Your task to perform on an android device: Check the weather Image 0: 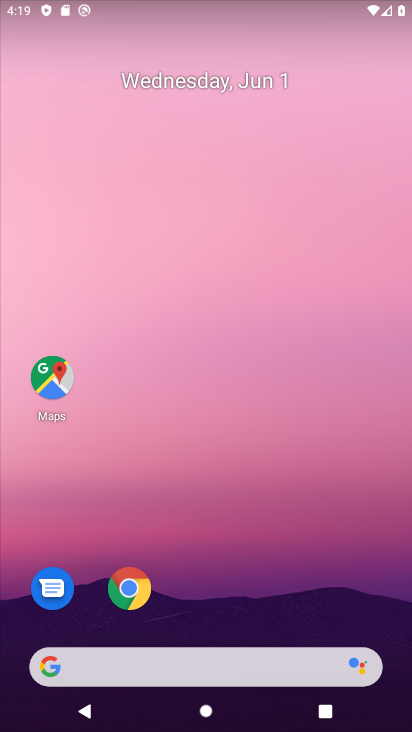
Step 0: drag from (256, 600) to (281, 193)
Your task to perform on an android device: Check the weather Image 1: 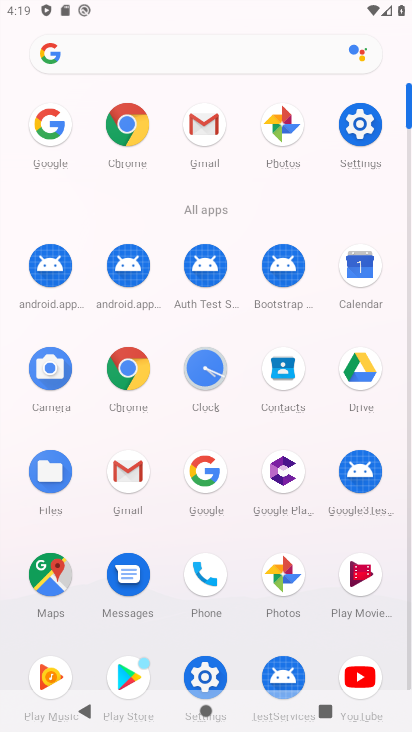
Step 1: click (49, 128)
Your task to perform on an android device: Check the weather Image 2: 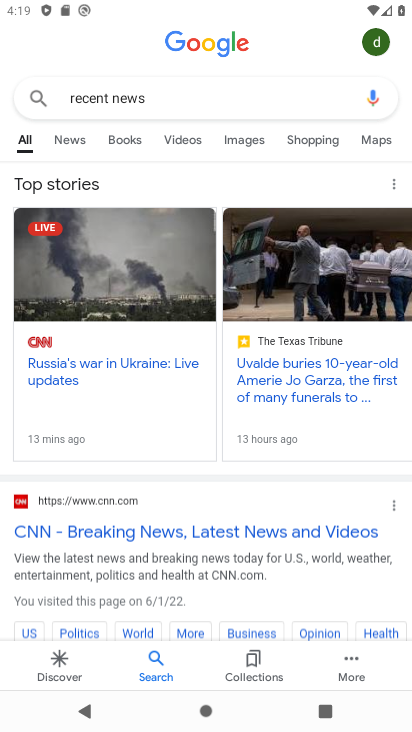
Step 2: click (194, 100)
Your task to perform on an android device: Check the weather Image 3: 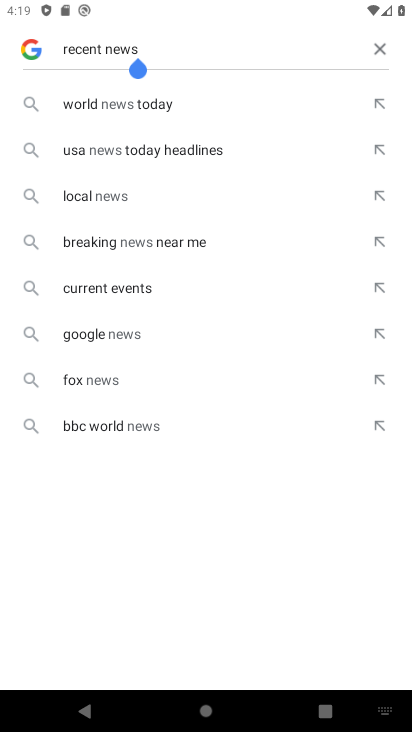
Step 3: click (374, 43)
Your task to perform on an android device: Check the weather Image 4: 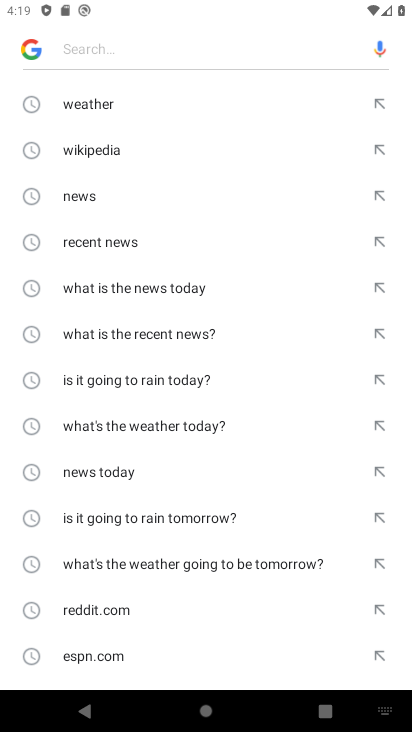
Step 4: click (114, 106)
Your task to perform on an android device: Check the weather Image 5: 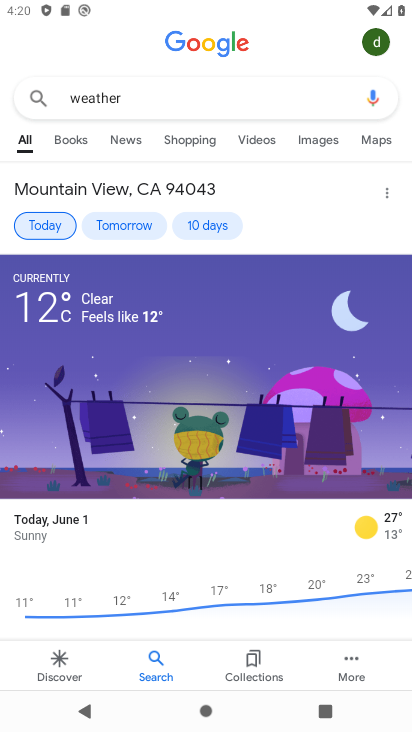
Step 5: task complete